Your task to perform on an android device: turn off notifications settings in the gmail app Image 0: 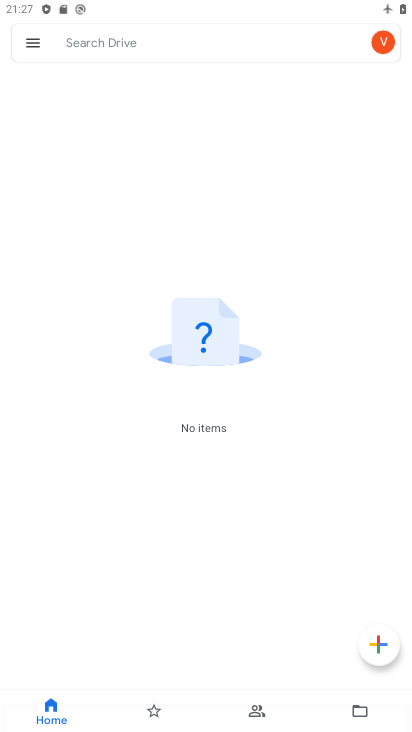
Step 0: press home button
Your task to perform on an android device: turn off notifications settings in the gmail app Image 1: 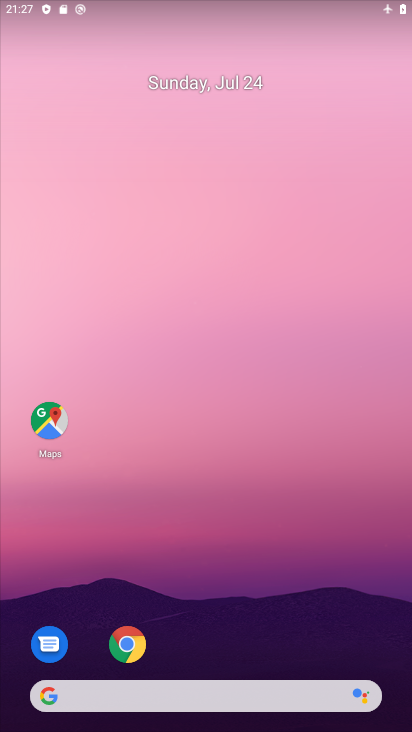
Step 1: drag from (382, 652) to (302, 126)
Your task to perform on an android device: turn off notifications settings in the gmail app Image 2: 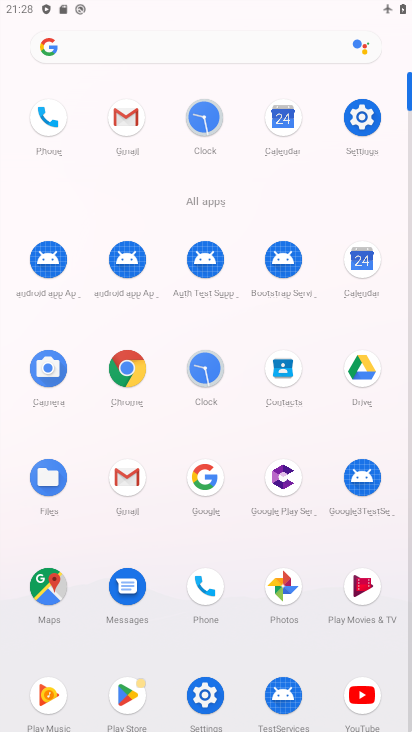
Step 2: click (129, 481)
Your task to perform on an android device: turn off notifications settings in the gmail app Image 3: 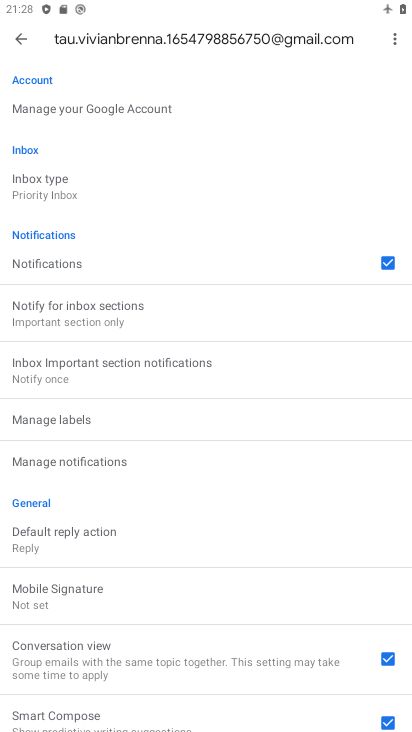
Step 3: click (71, 451)
Your task to perform on an android device: turn off notifications settings in the gmail app Image 4: 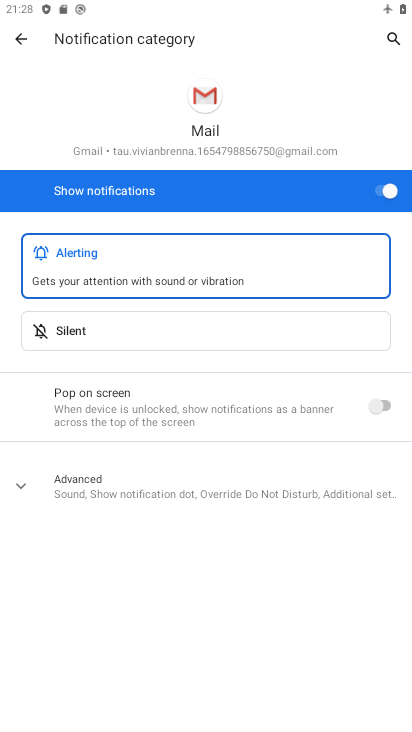
Step 4: click (18, 486)
Your task to perform on an android device: turn off notifications settings in the gmail app Image 5: 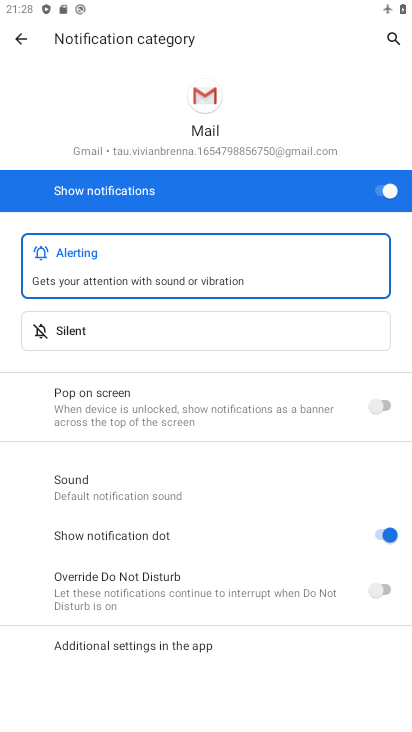
Step 5: click (377, 188)
Your task to perform on an android device: turn off notifications settings in the gmail app Image 6: 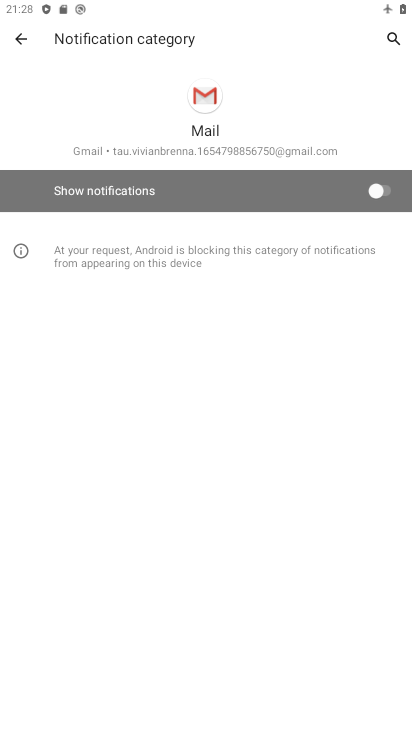
Step 6: task complete